Your task to perform on an android device: manage bookmarks in the chrome app Image 0: 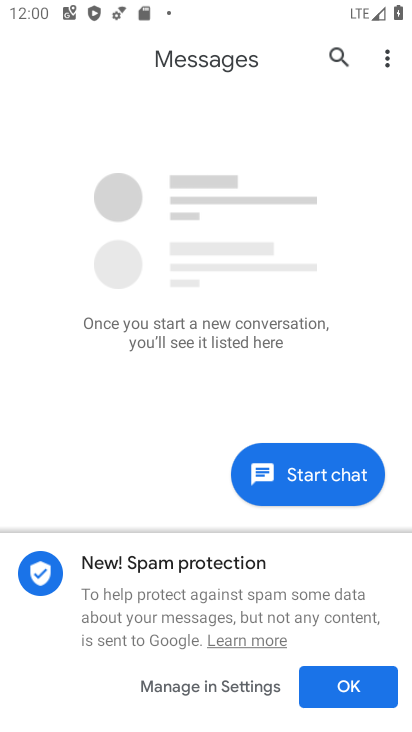
Step 0: press home button
Your task to perform on an android device: manage bookmarks in the chrome app Image 1: 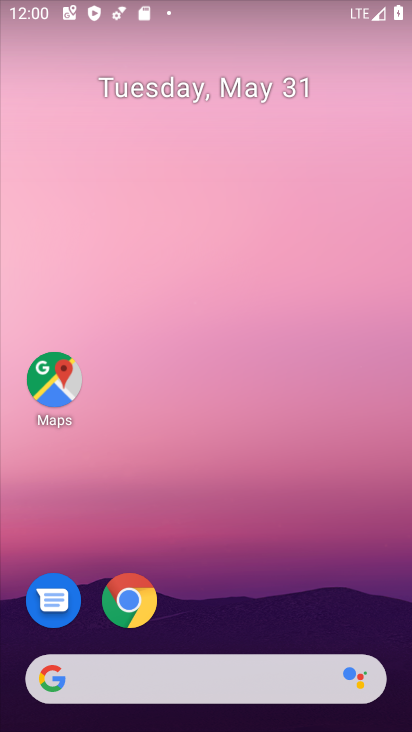
Step 1: click (129, 600)
Your task to perform on an android device: manage bookmarks in the chrome app Image 2: 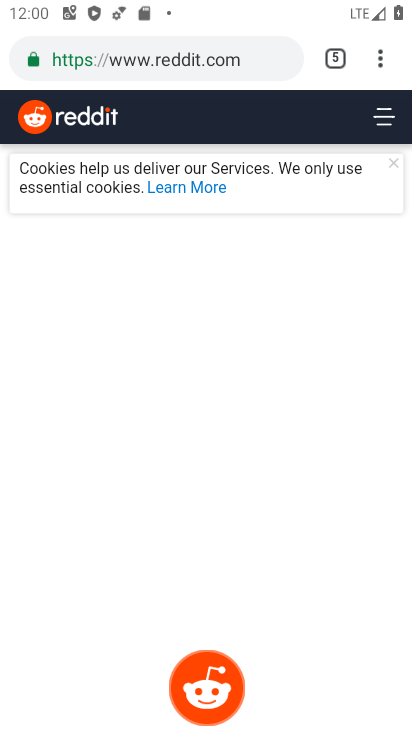
Step 2: click (381, 67)
Your task to perform on an android device: manage bookmarks in the chrome app Image 3: 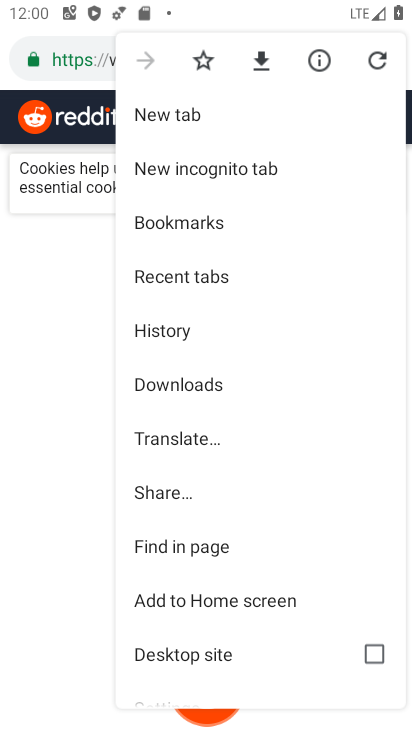
Step 3: click (178, 220)
Your task to perform on an android device: manage bookmarks in the chrome app Image 4: 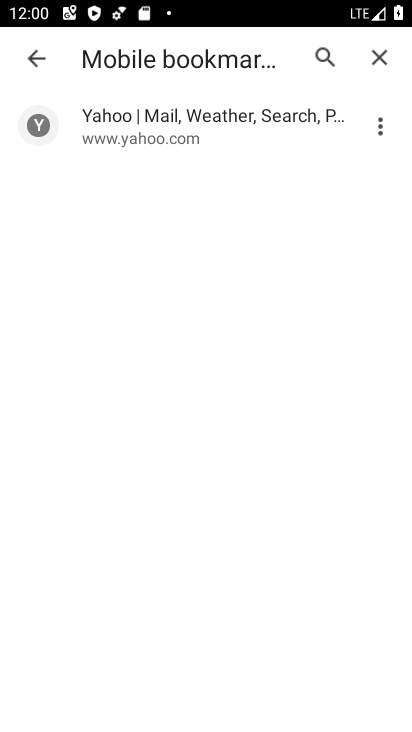
Step 4: click (382, 130)
Your task to perform on an android device: manage bookmarks in the chrome app Image 5: 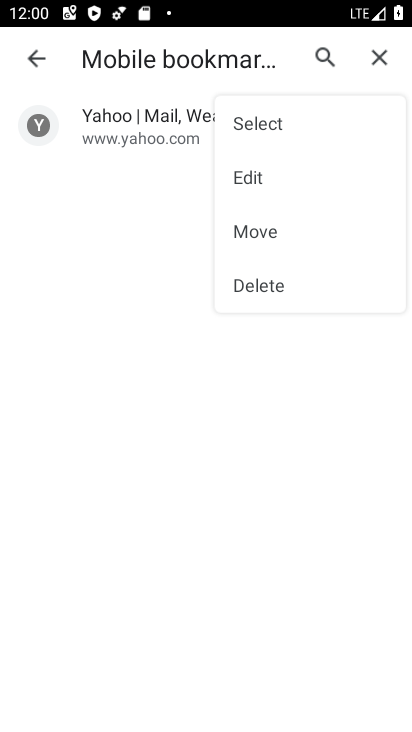
Step 5: click (248, 175)
Your task to perform on an android device: manage bookmarks in the chrome app Image 6: 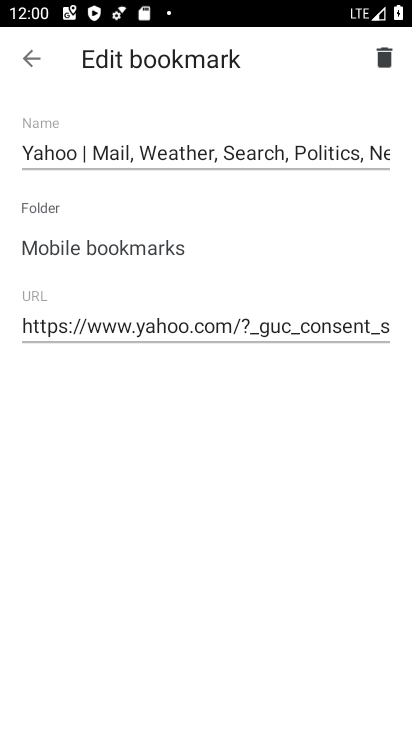
Step 6: click (157, 144)
Your task to perform on an android device: manage bookmarks in the chrome app Image 7: 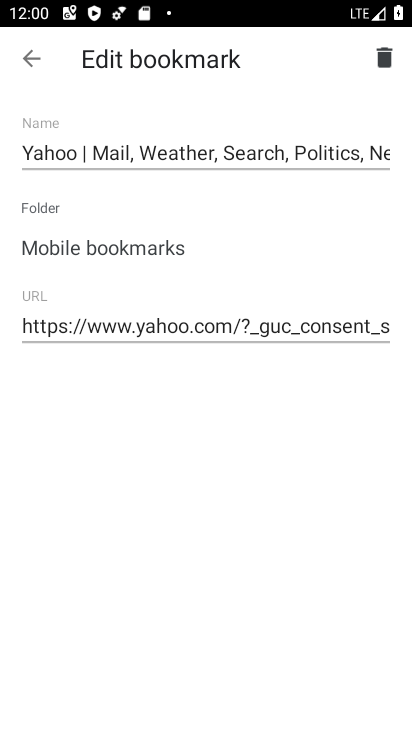
Step 7: click (157, 144)
Your task to perform on an android device: manage bookmarks in the chrome app Image 8: 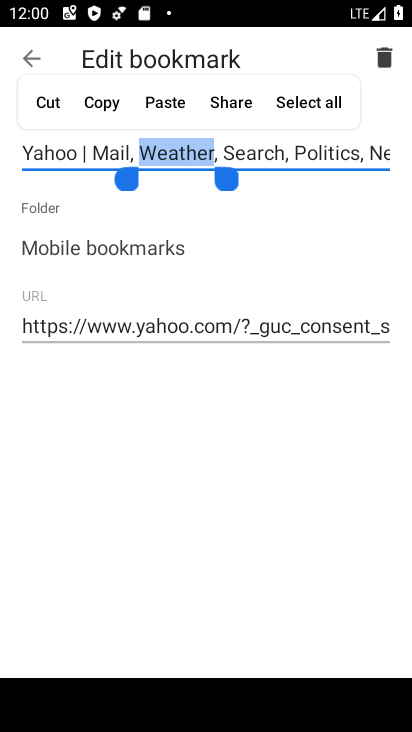
Step 8: click (47, 101)
Your task to perform on an android device: manage bookmarks in the chrome app Image 9: 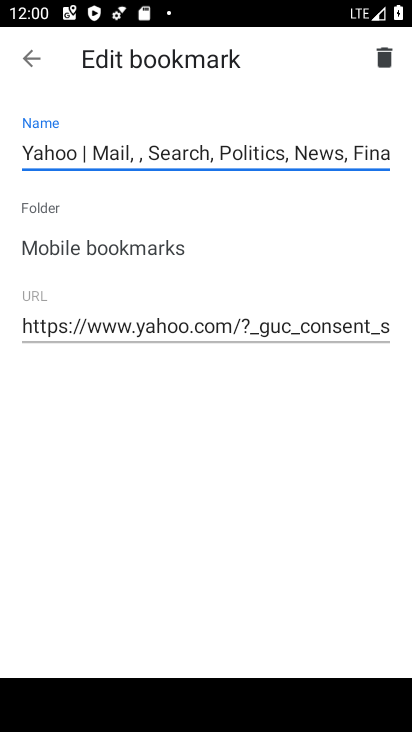
Step 9: click (27, 54)
Your task to perform on an android device: manage bookmarks in the chrome app Image 10: 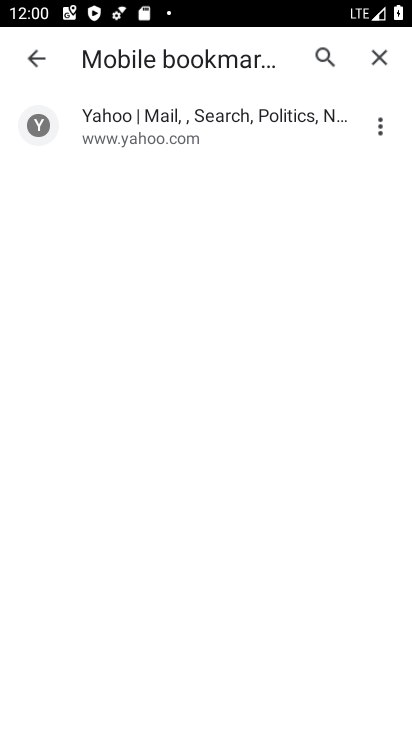
Step 10: task complete